Your task to perform on an android device: find which apps use the phone's location Image 0: 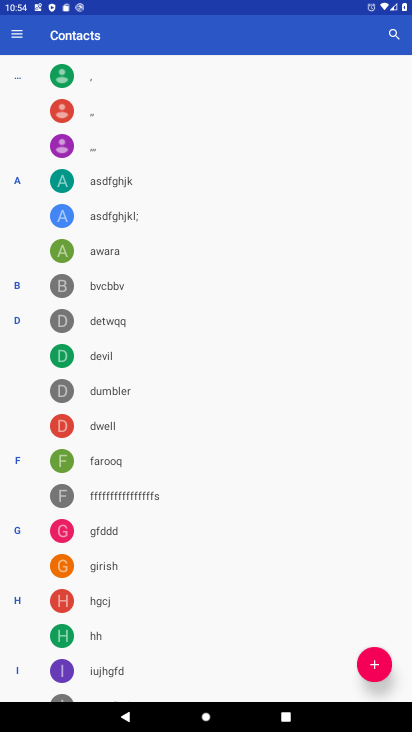
Step 0: press home button
Your task to perform on an android device: find which apps use the phone's location Image 1: 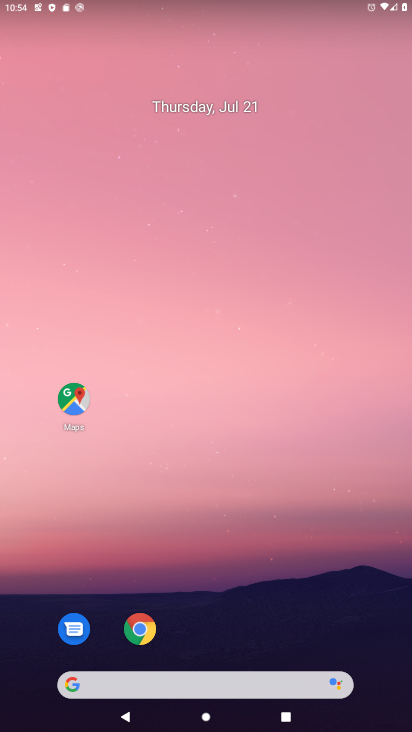
Step 1: drag from (210, 595) to (306, 156)
Your task to perform on an android device: find which apps use the phone's location Image 2: 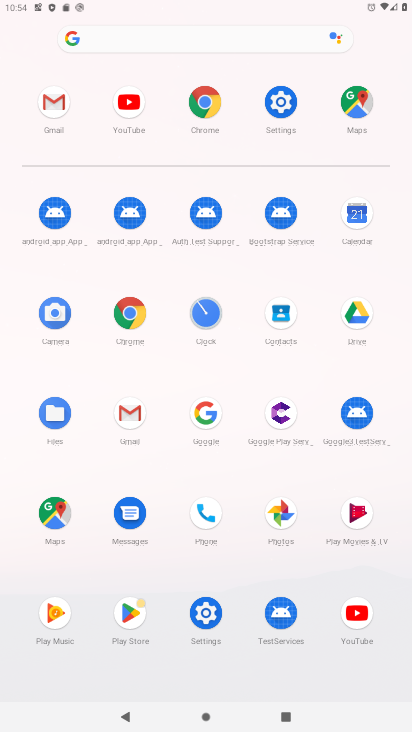
Step 2: click (268, 104)
Your task to perform on an android device: find which apps use the phone's location Image 3: 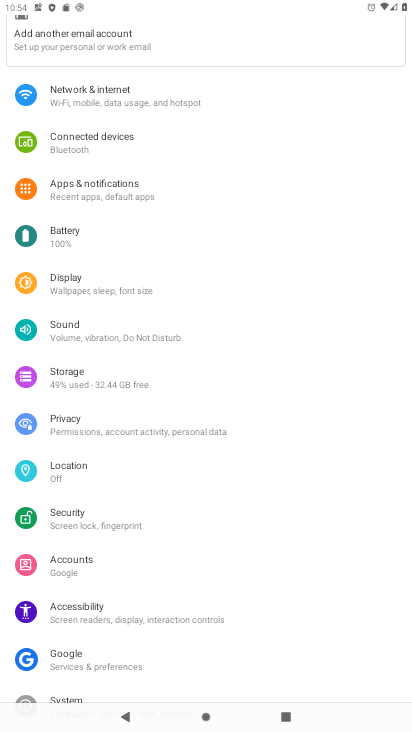
Step 3: click (72, 477)
Your task to perform on an android device: find which apps use the phone's location Image 4: 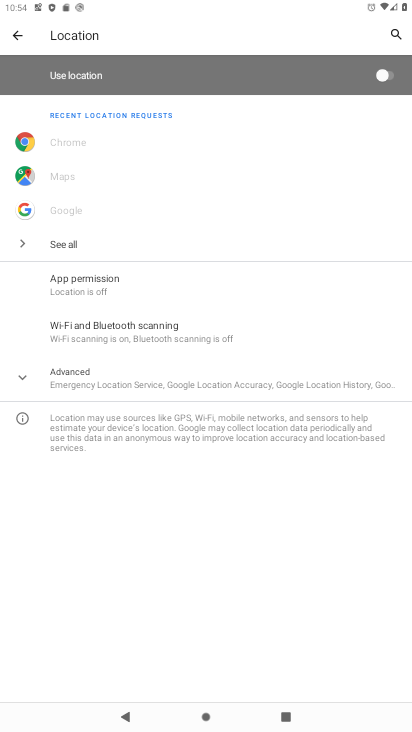
Step 4: click (79, 240)
Your task to perform on an android device: find which apps use the phone's location Image 5: 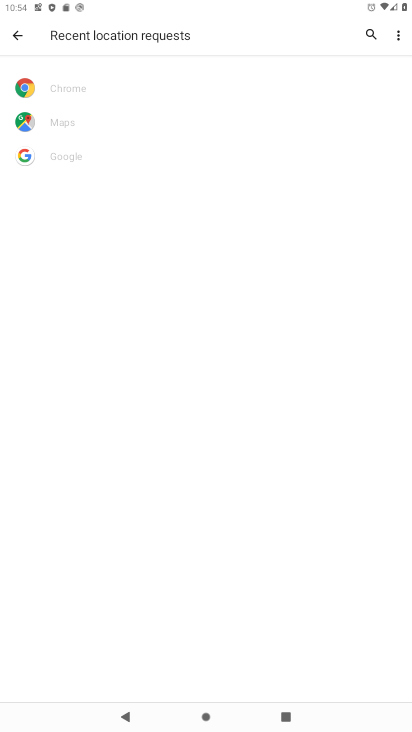
Step 5: task complete